Your task to perform on an android device: Search for Italian restaurants on Maps Image 0: 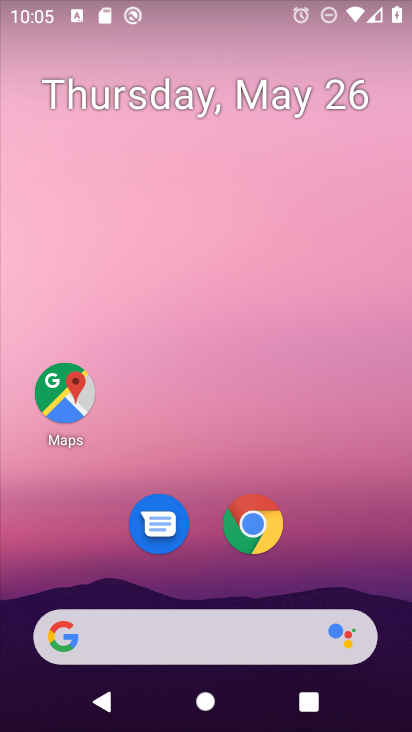
Step 0: click (66, 383)
Your task to perform on an android device: Search for Italian restaurants on Maps Image 1: 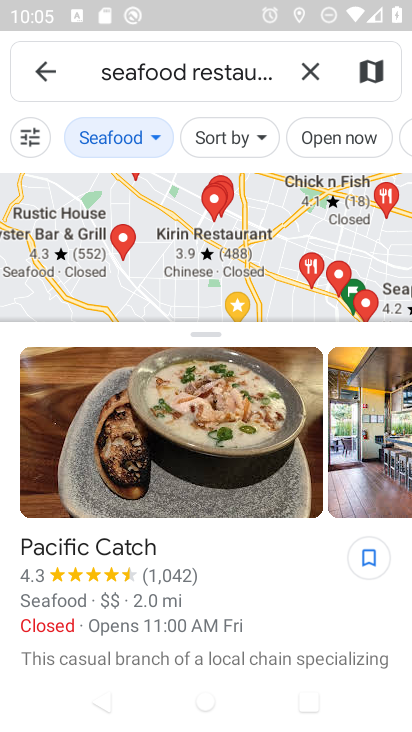
Step 1: click (309, 73)
Your task to perform on an android device: Search for Italian restaurants on Maps Image 2: 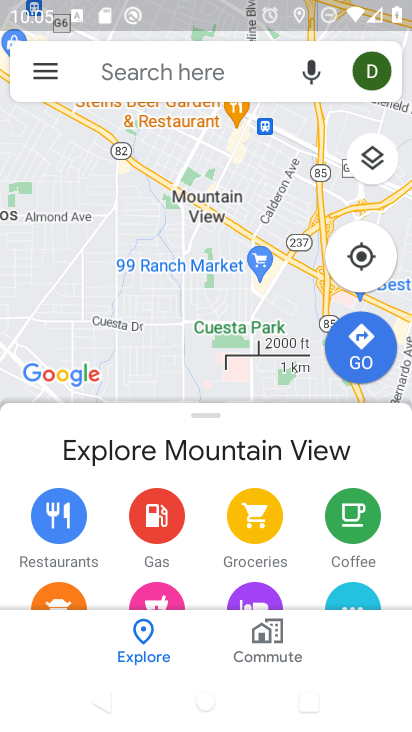
Step 2: click (190, 62)
Your task to perform on an android device: Search for Italian restaurants on Maps Image 3: 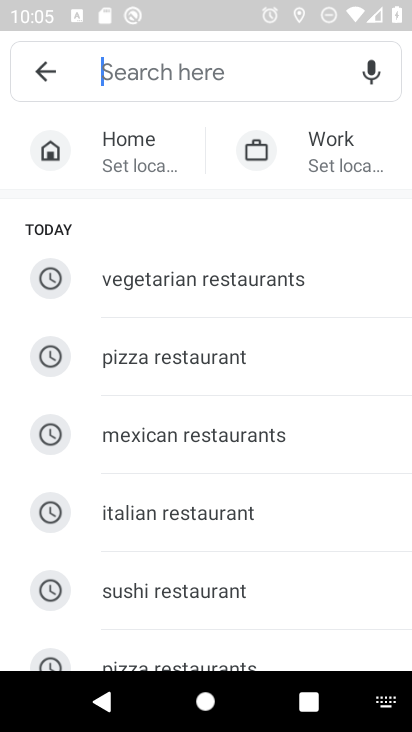
Step 3: click (182, 514)
Your task to perform on an android device: Search for Italian restaurants on Maps Image 4: 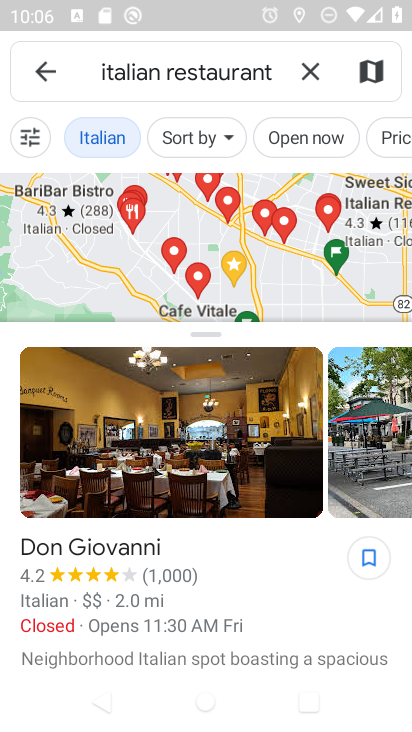
Step 4: task complete